Your task to perform on an android device: turn off wifi Image 0: 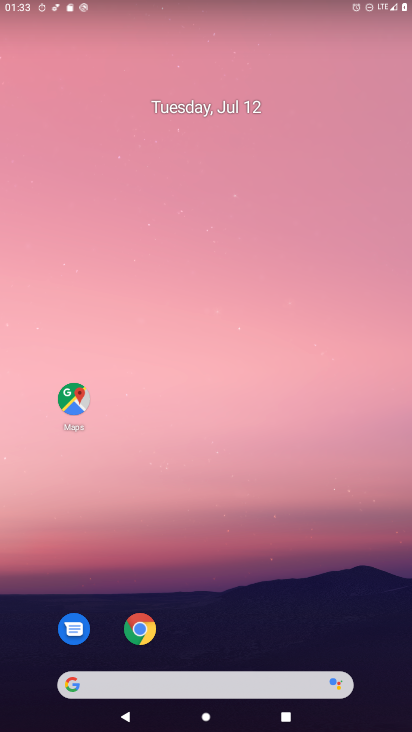
Step 0: drag from (45, 642) to (222, 13)
Your task to perform on an android device: turn off wifi Image 1: 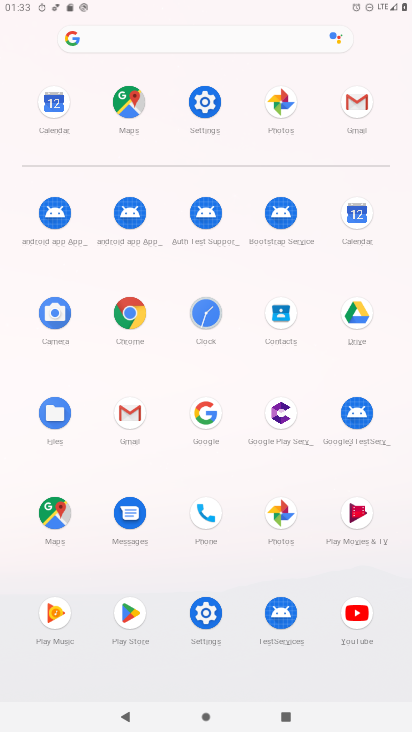
Step 1: click (208, 598)
Your task to perform on an android device: turn off wifi Image 2: 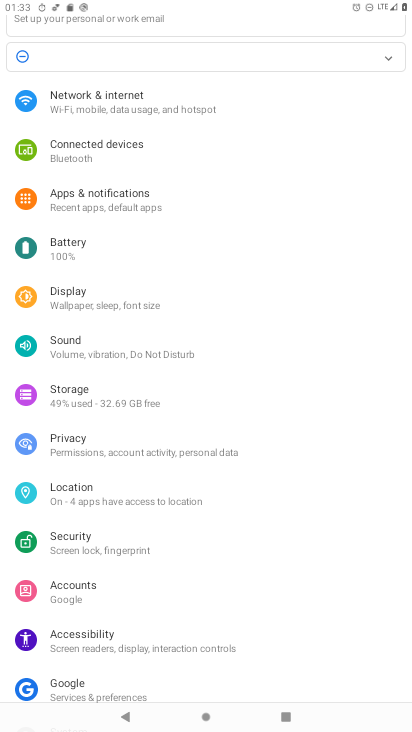
Step 2: click (68, 90)
Your task to perform on an android device: turn off wifi Image 3: 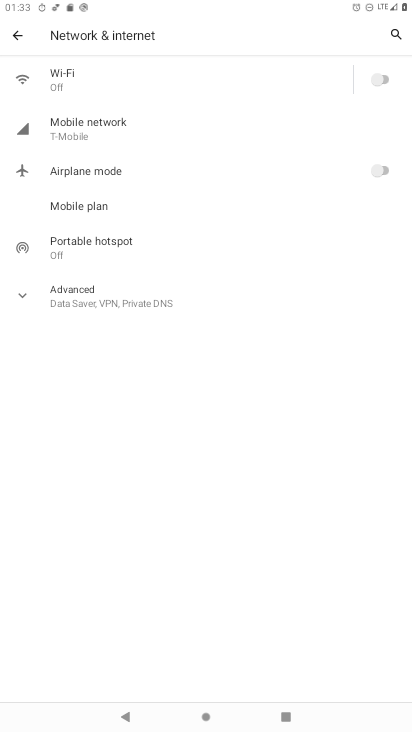
Step 3: click (74, 78)
Your task to perform on an android device: turn off wifi Image 4: 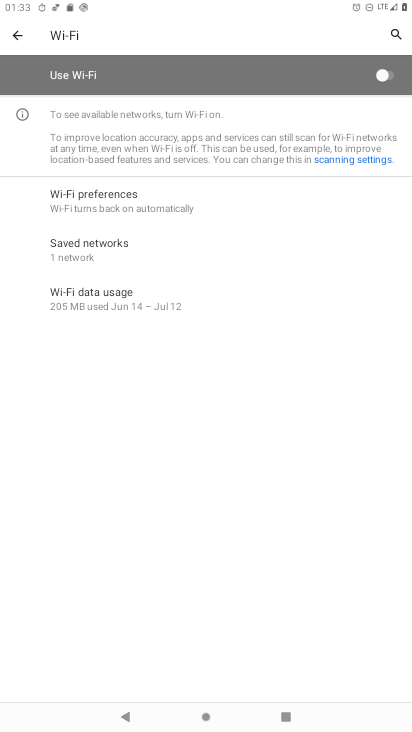
Step 4: task complete